Your task to perform on an android device: open device folders in google photos Image 0: 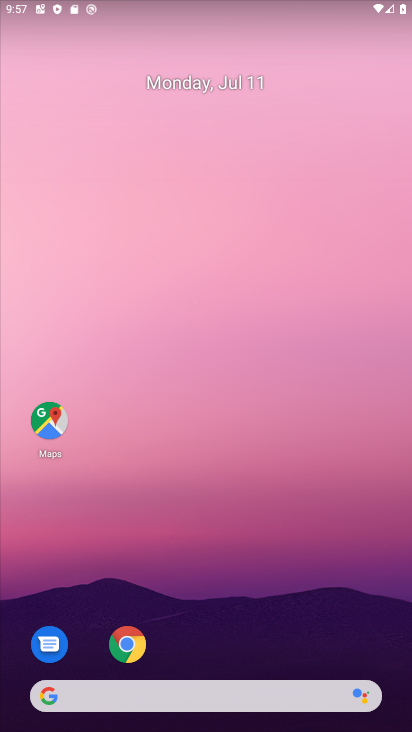
Step 0: press home button
Your task to perform on an android device: open device folders in google photos Image 1: 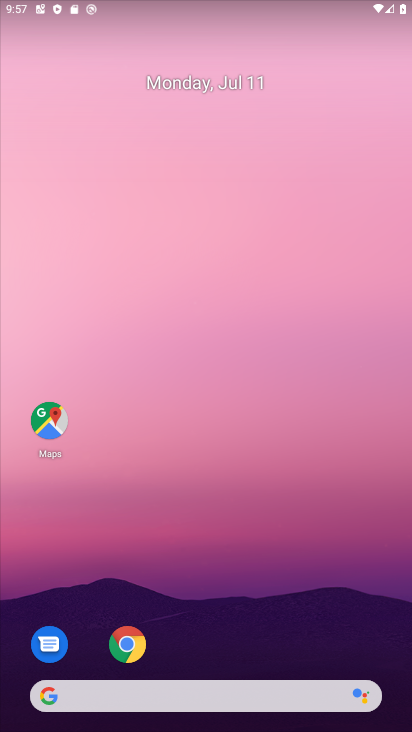
Step 1: drag from (218, 667) to (208, 54)
Your task to perform on an android device: open device folders in google photos Image 2: 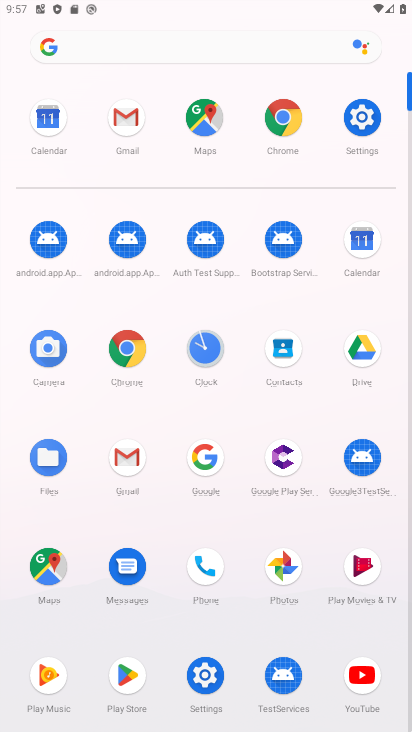
Step 2: click (280, 562)
Your task to perform on an android device: open device folders in google photos Image 3: 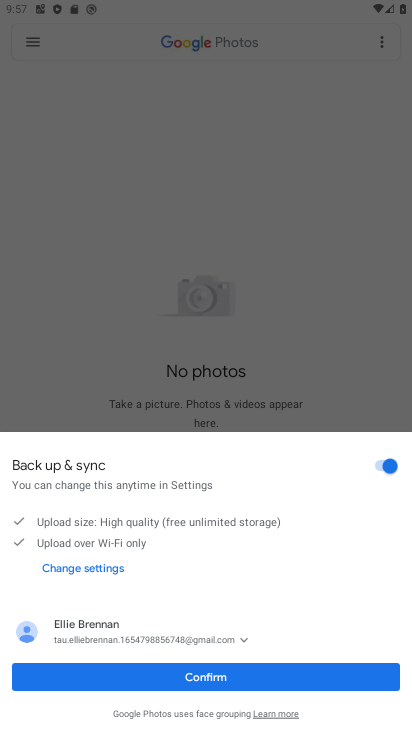
Step 3: click (210, 669)
Your task to perform on an android device: open device folders in google photos Image 4: 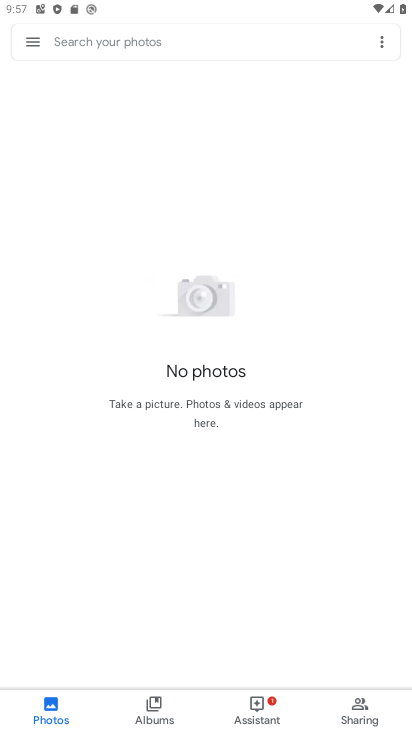
Step 4: click (28, 30)
Your task to perform on an android device: open device folders in google photos Image 5: 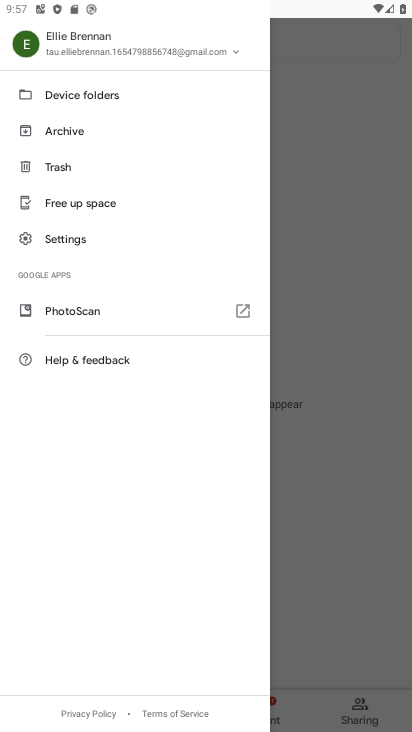
Step 5: click (89, 99)
Your task to perform on an android device: open device folders in google photos Image 6: 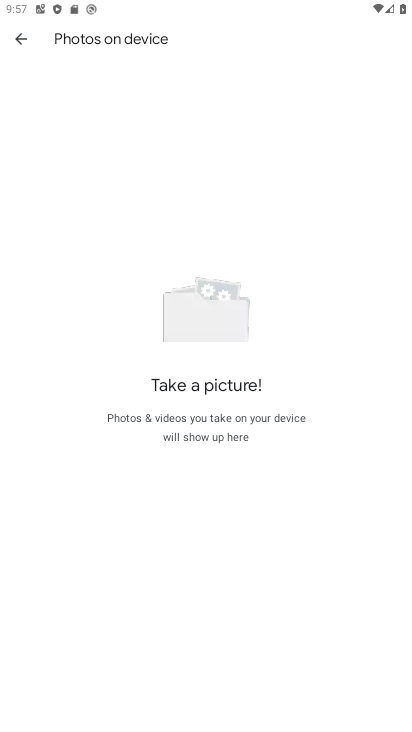
Step 6: task complete